Your task to perform on an android device: Open the stopwatch Image 0: 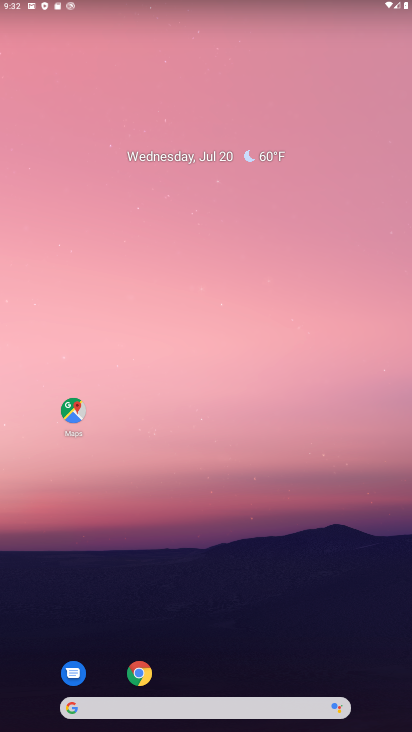
Step 0: drag from (213, 673) to (229, 256)
Your task to perform on an android device: Open the stopwatch Image 1: 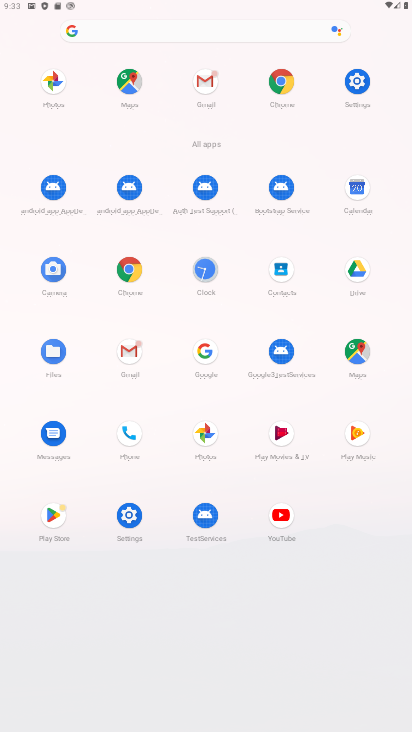
Step 1: click (201, 274)
Your task to perform on an android device: Open the stopwatch Image 2: 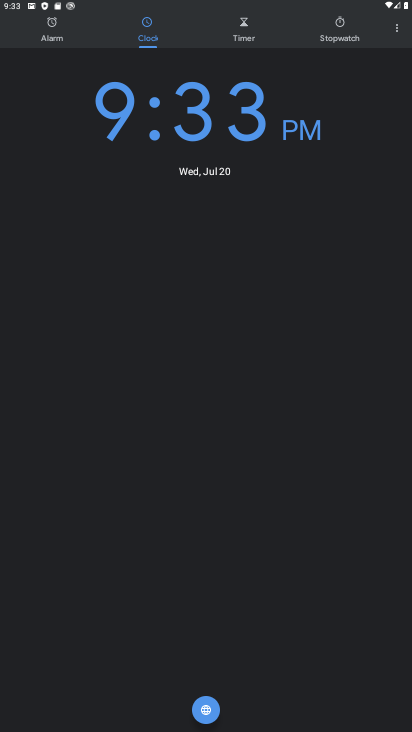
Step 2: click (335, 40)
Your task to perform on an android device: Open the stopwatch Image 3: 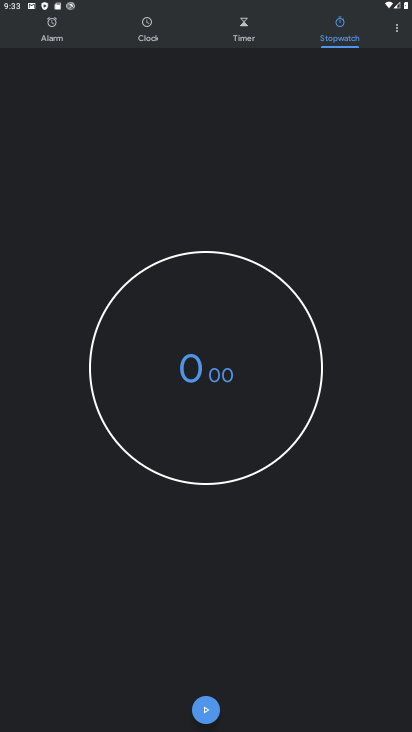
Step 3: task complete